Your task to perform on an android device: toggle translation in the chrome app Image 0: 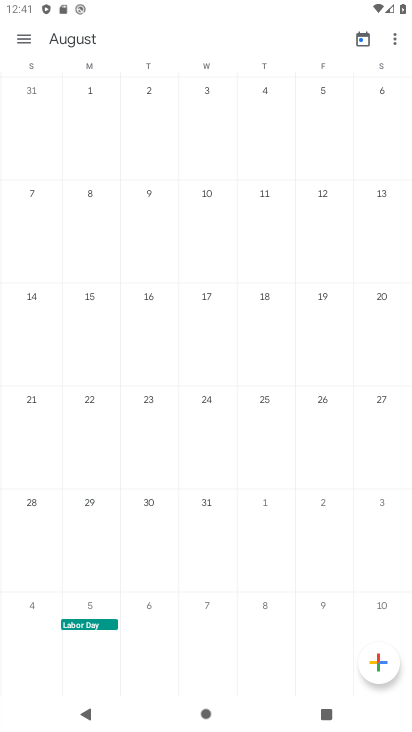
Step 0: press home button
Your task to perform on an android device: toggle translation in the chrome app Image 1: 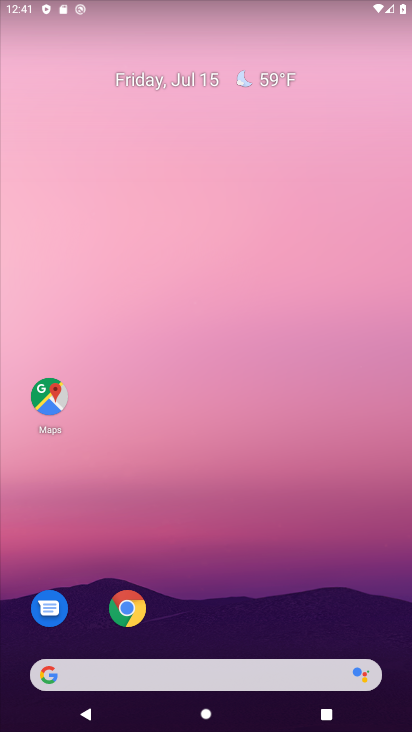
Step 1: click (131, 621)
Your task to perform on an android device: toggle translation in the chrome app Image 2: 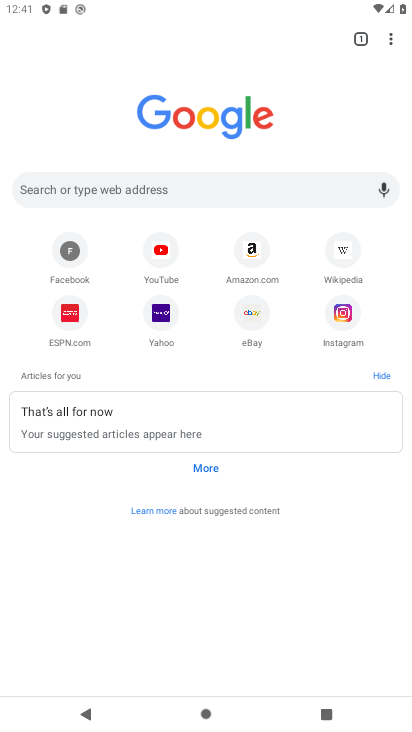
Step 2: drag from (390, 38) to (271, 375)
Your task to perform on an android device: toggle translation in the chrome app Image 3: 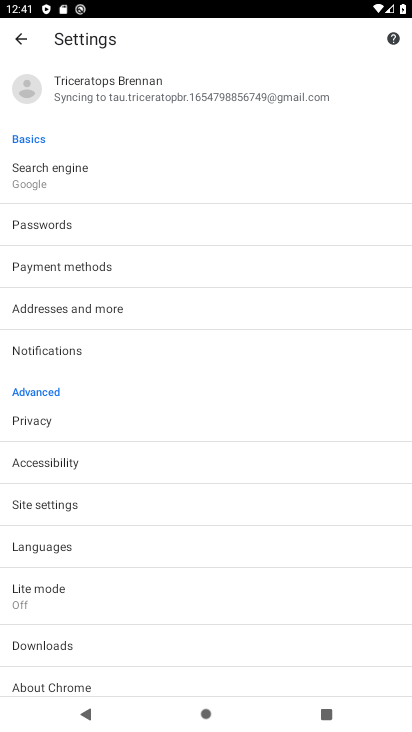
Step 3: click (98, 543)
Your task to perform on an android device: toggle translation in the chrome app Image 4: 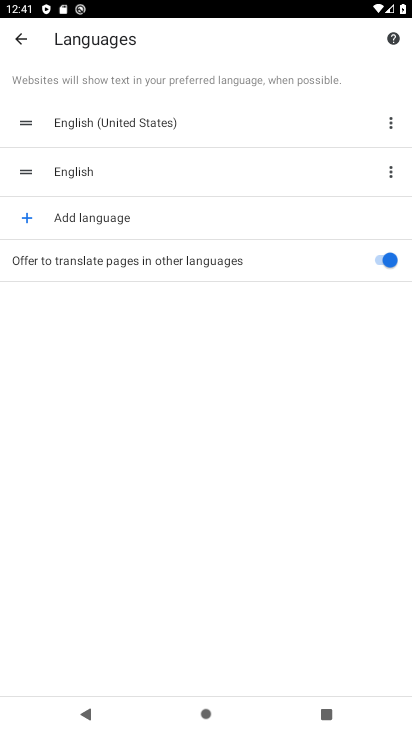
Step 4: click (379, 258)
Your task to perform on an android device: toggle translation in the chrome app Image 5: 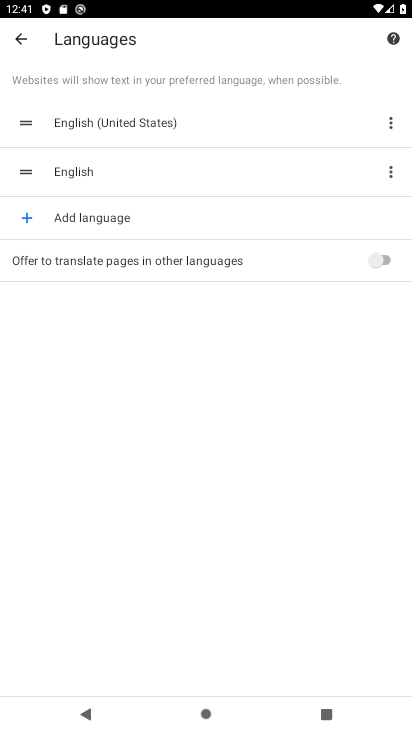
Step 5: task complete